Your task to perform on an android device: Empty the shopping cart on newegg.com. Add logitech g933 to the cart on newegg.com, then select checkout. Image 0: 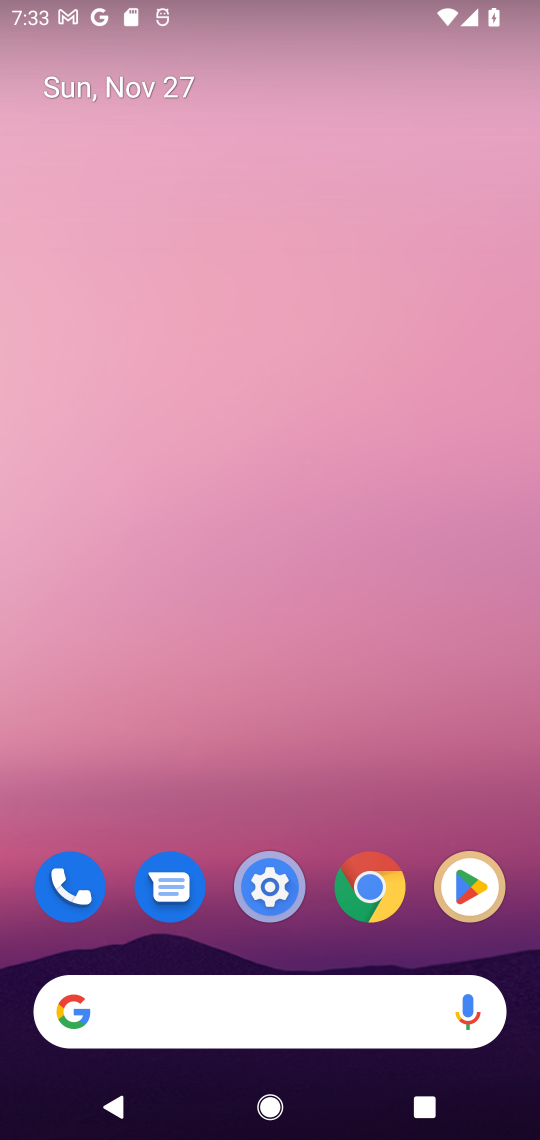
Step 0: click (265, 1004)
Your task to perform on an android device: Empty the shopping cart on newegg.com. Add logitech g933 to the cart on newegg.com, then select checkout. Image 1: 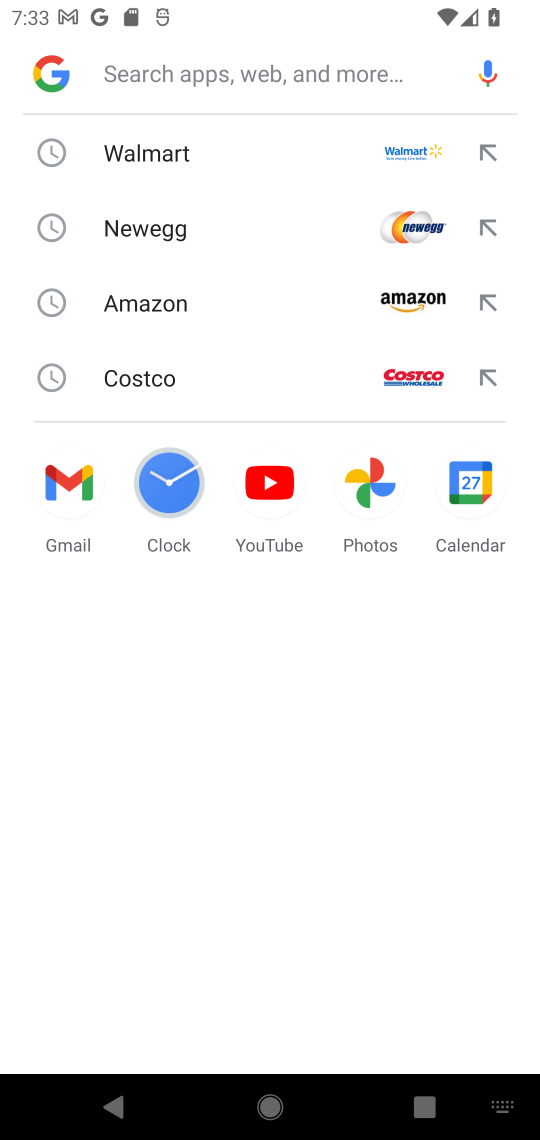
Step 1: click (223, 242)
Your task to perform on an android device: Empty the shopping cart on newegg.com. Add logitech g933 to the cart on newegg.com, then select checkout. Image 2: 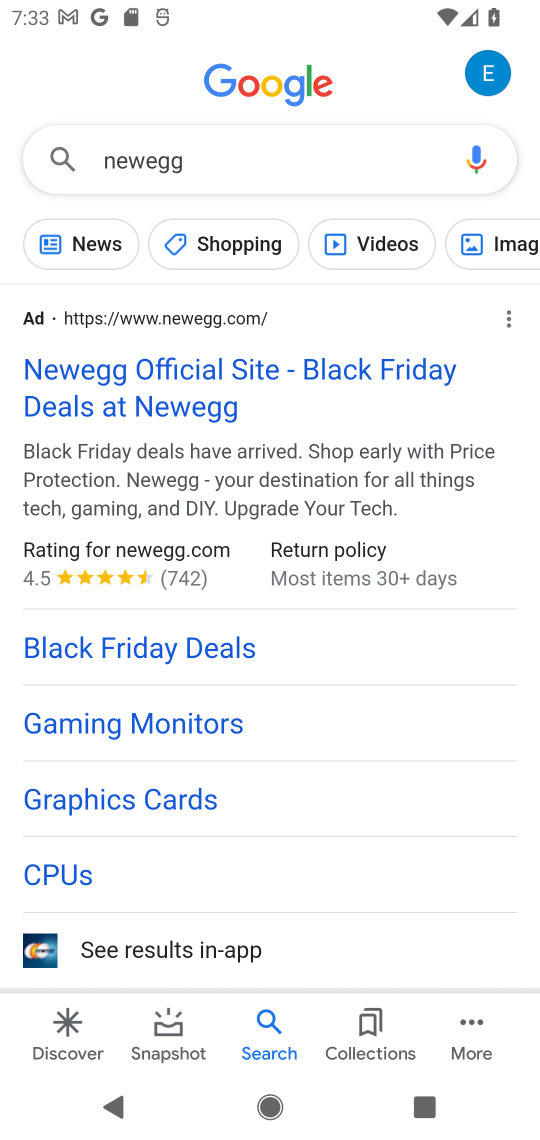
Step 2: click (237, 402)
Your task to perform on an android device: Empty the shopping cart on newegg.com. Add logitech g933 to the cart on newegg.com, then select checkout. Image 3: 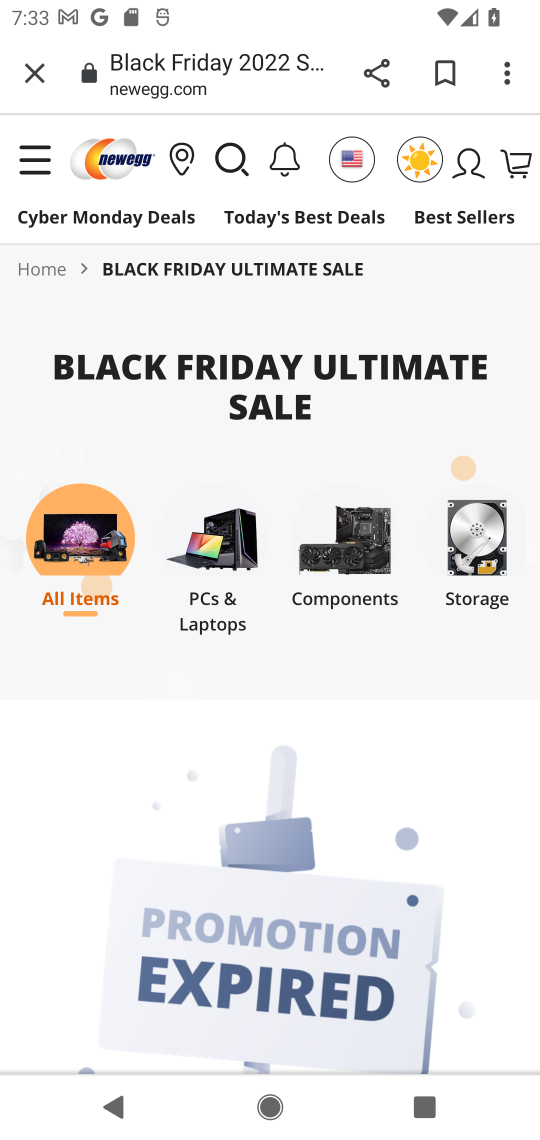
Step 3: click (245, 161)
Your task to perform on an android device: Empty the shopping cart on newegg.com. Add logitech g933 to the cart on newegg.com, then select checkout. Image 4: 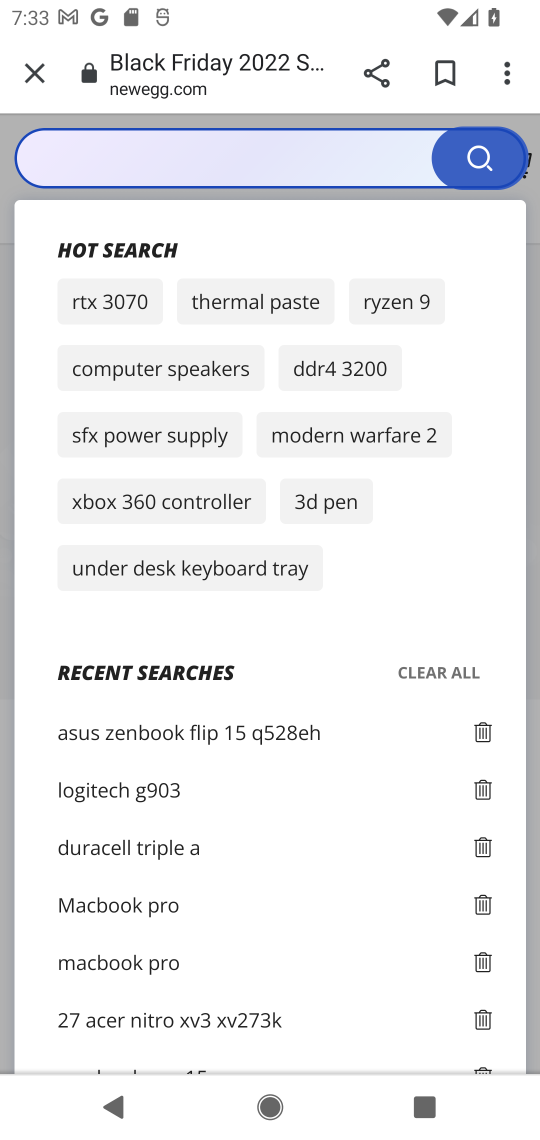
Step 4: type "logitech g933"
Your task to perform on an android device: Empty the shopping cart on newegg.com. Add logitech g933 to the cart on newegg.com, then select checkout. Image 5: 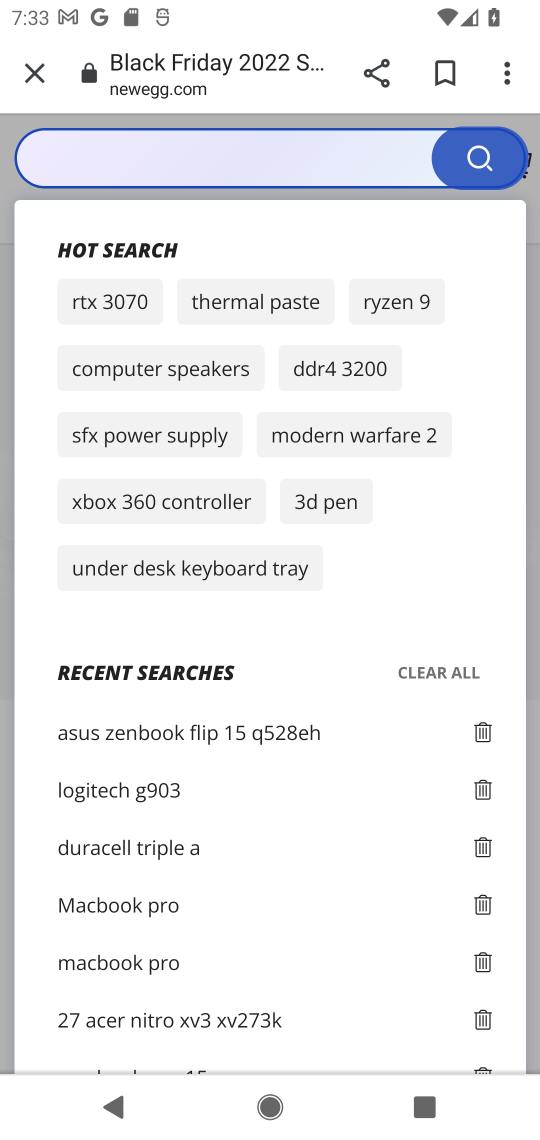
Step 5: click (227, 790)
Your task to perform on an android device: Empty the shopping cart on newegg.com. Add logitech g933 to the cart on newegg.com, then select checkout. Image 6: 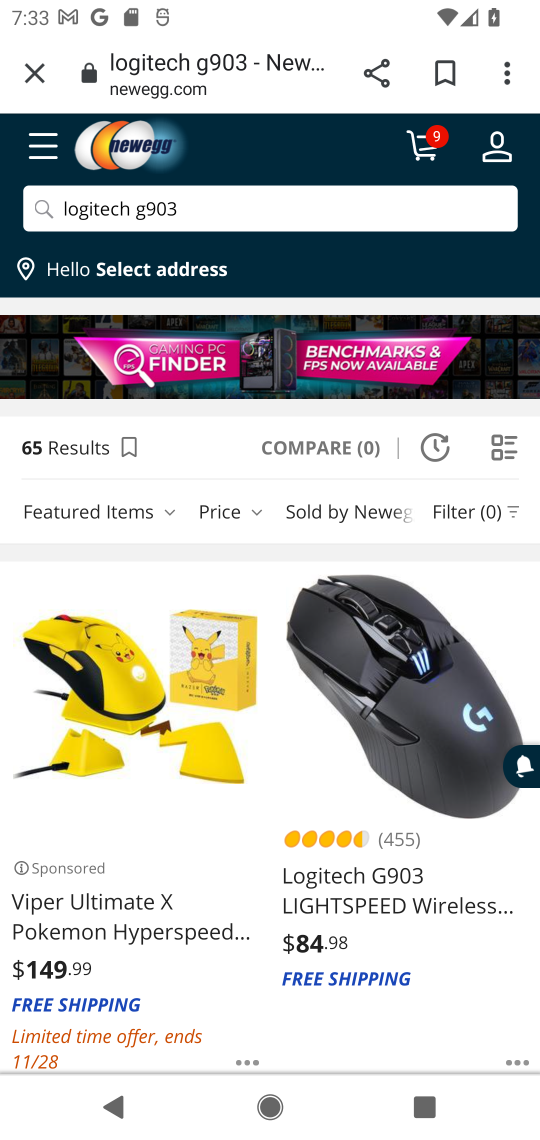
Step 6: click (145, 836)
Your task to perform on an android device: Empty the shopping cart on newegg.com. Add logitech g933 to the cart on newegg.com, then select checkout. Image 7: 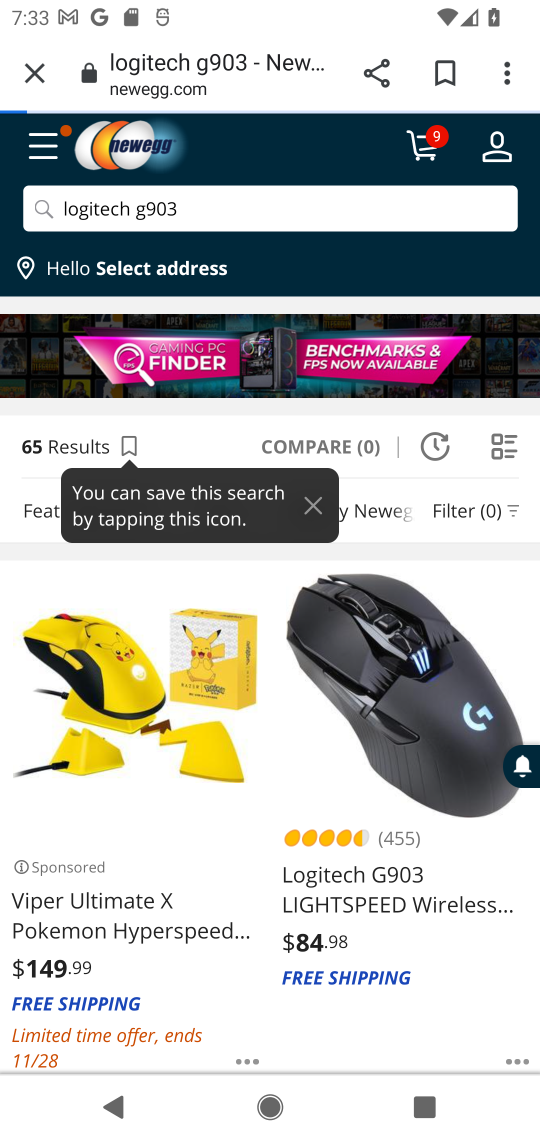
Step 7: task complete